Your task to perform on an android device: move a message to another label in the gmail app Image 0: 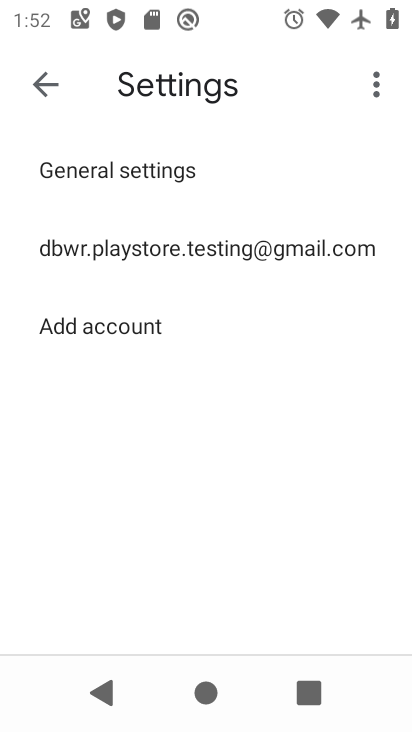
Step 0: press home button
Your task to perform on an android device: move a message to another label in the gmail app Image 1: 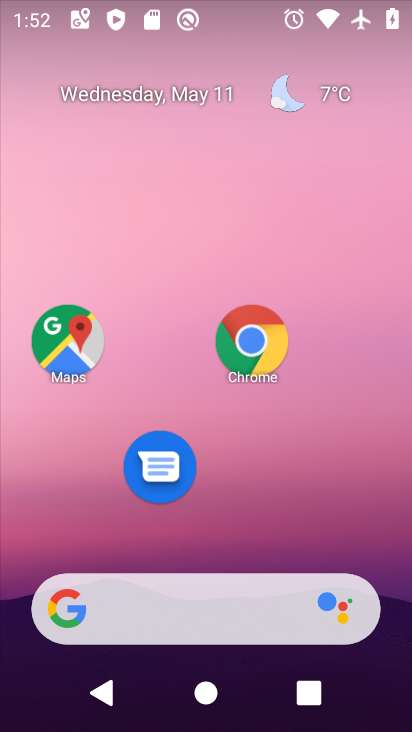
Step 1: drag from (187, 608) to (250, 87)
Your task to perform on an android device: move a message to another label in the gmail app Image 2: 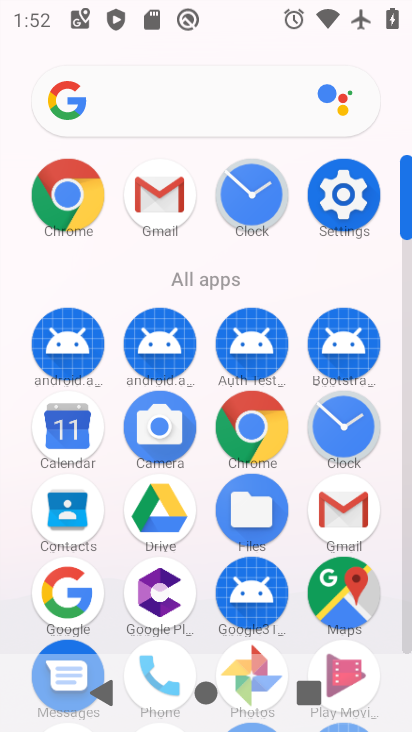
Step 2: click (160, 211)
Your task to perform on an android device: move a message to another label in the gmail app Image 3: 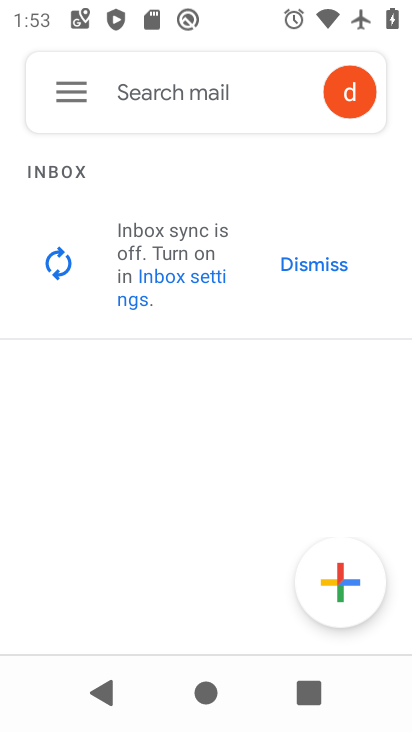
Step 3: task complete